Your task to perform on an android device: Open battery settings Image 0: 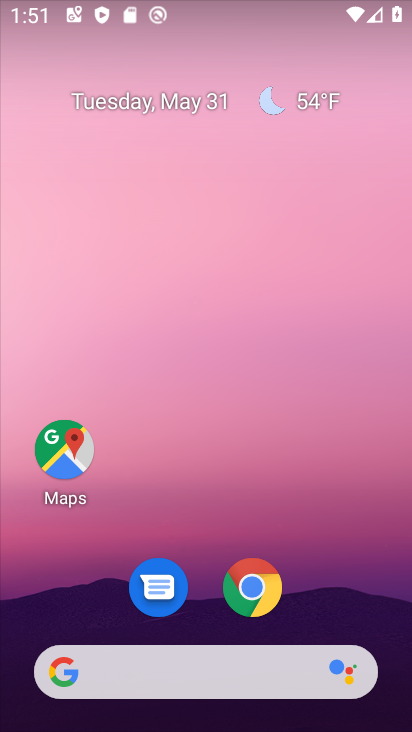
Step 0: drag from (146, 0) to (36, 188)
Your task to perform on an android device: Open battery settings Image 1: 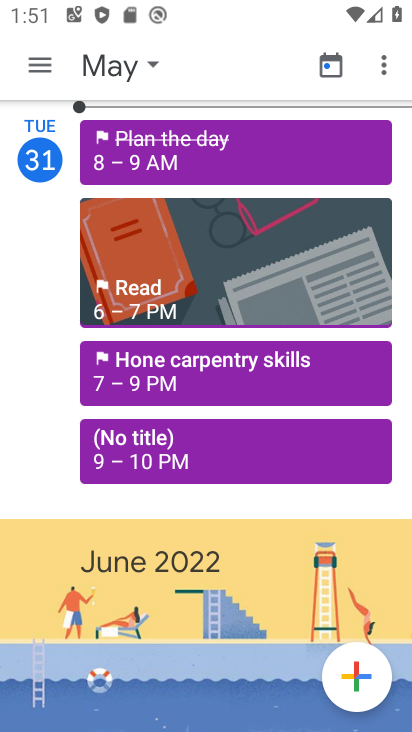
Step 1: press home button
Your task to perform on an android device: Open battery settings Image 2: 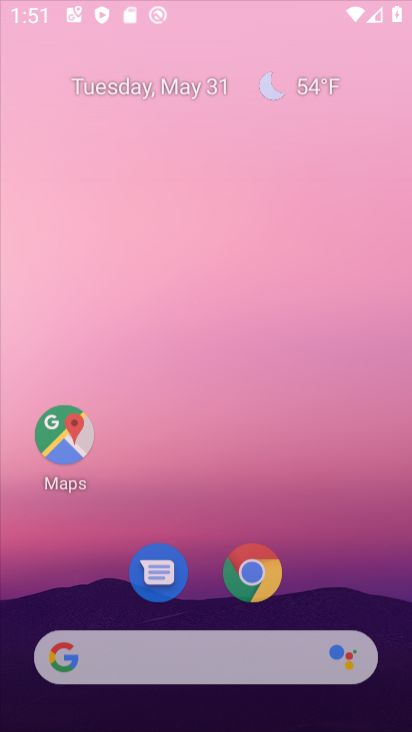
Step 2: drag from (200, 580) to (237, 17)
Your task to perform on an android device: Open battery settings Image 3: 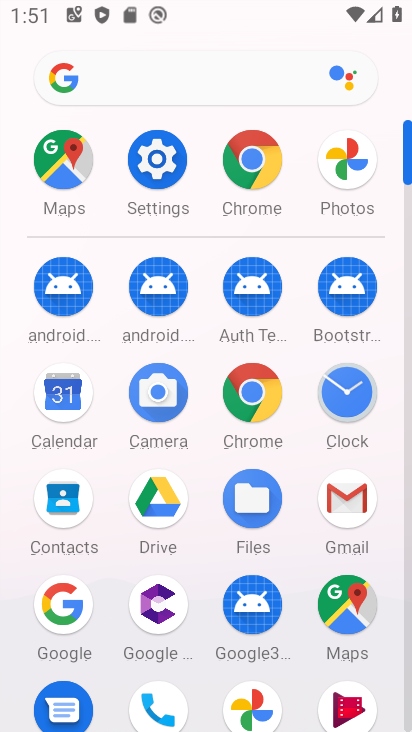
Step 3: click (168, 148)
Your task to perform on an android device: Open battery settings Image 4: 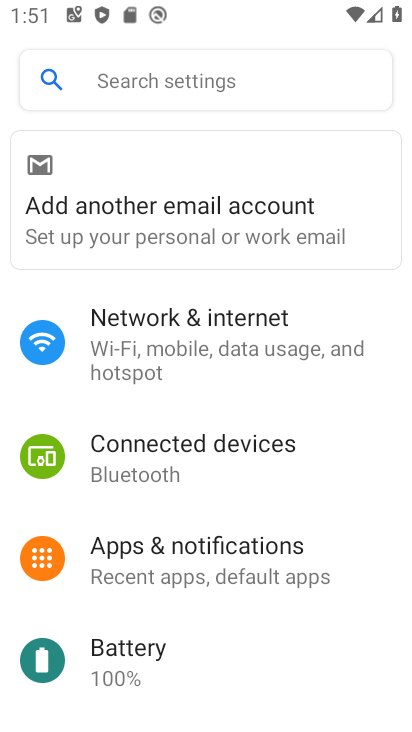
Step 4: drag from (209, 633) to (277, 232)
Your task to perform on an android device: Open battery settings Image 5: 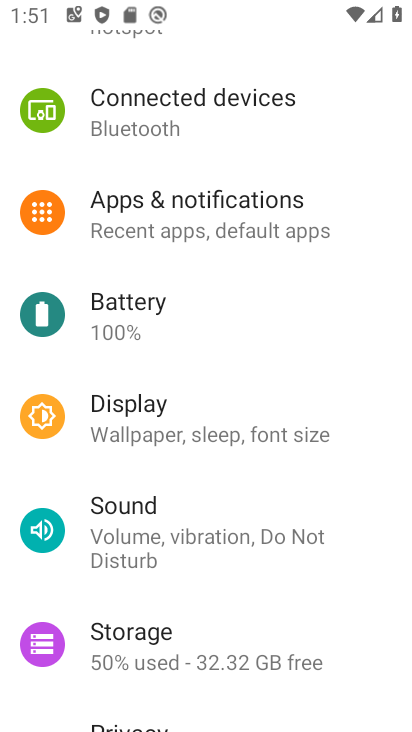
Step 5: click (187, 311)
Your task to perform on an android device: Open battery settings Image 6: 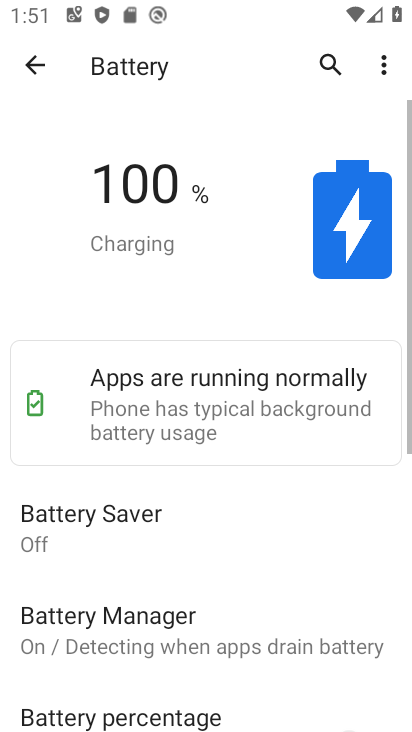
Step 6: task complete